Your task to perform on an android device: turn off priority inbox in the gmail app Image 0: 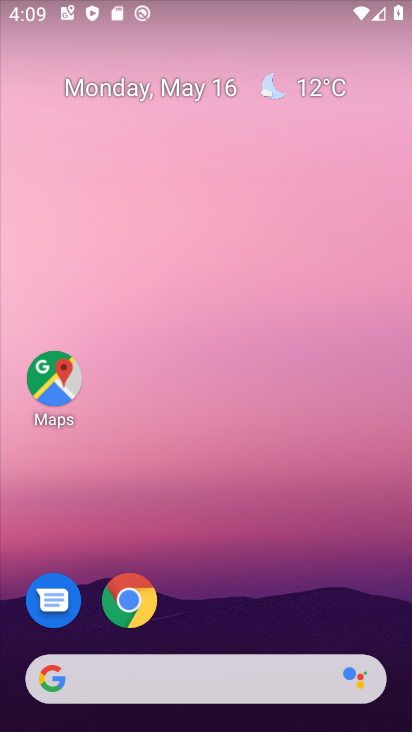
Step 0: drag from (166, 501) to (213, 247)
Your task to perform on an android device: turn off priority inbox in the gmail app Image 1: 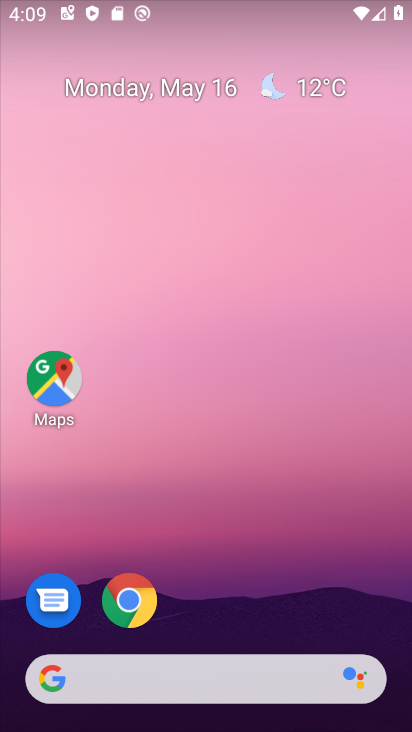
Step 1: drag from (226, 671) to (232, 232)
Your task to perform on an android device: turn off priority inbox in the gmail app Image 2: 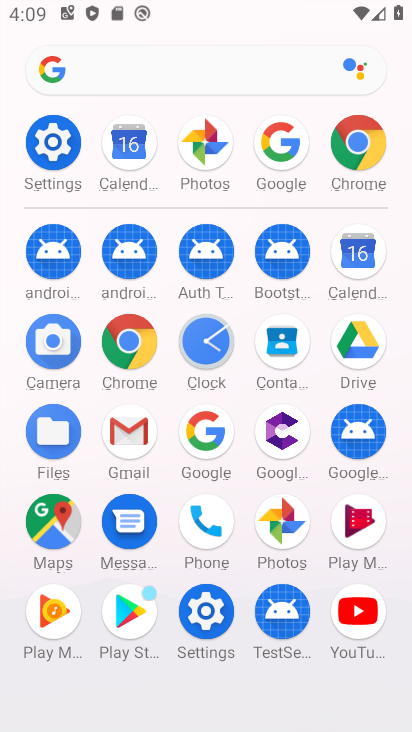
Step 2: click (134, 435)
Your task to perform on an android device: turn off priority inbox in the gmail app Image 3: 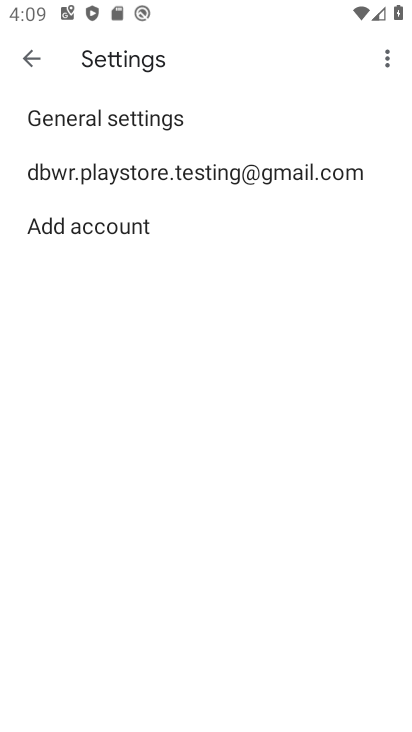
Step 3: click (80, 177)
Your task to perform on an android device: turn off priority inbox in the gmail app Image 4: 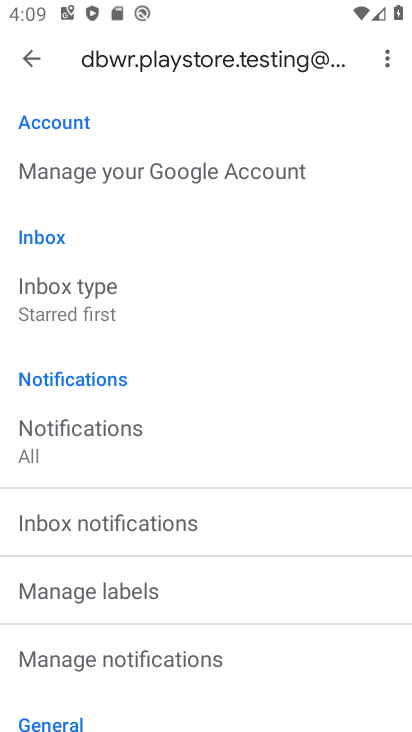
Step 4: task complete